Your task to perform on an android device: star an email in the gmail app Image 0: 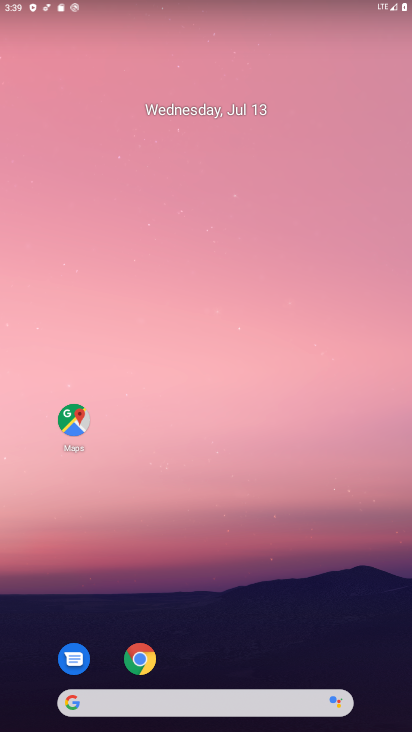
Step 0: drag from (218, 663) to (204, 241)
Your task to perform on an android device: star an email in the gmail app Image 1: 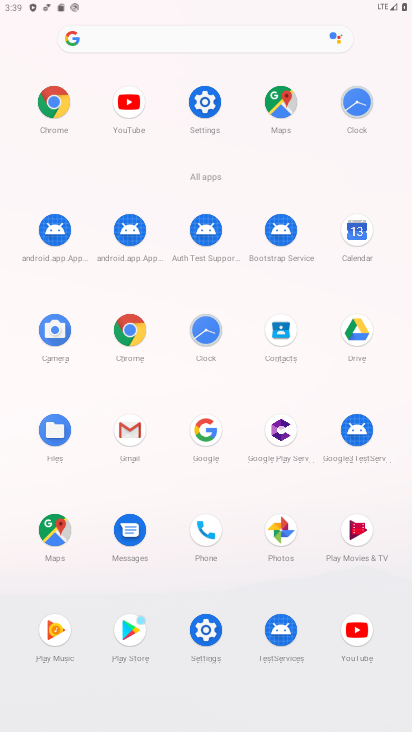
Step 1: click (129, 424)
Your task to perform on an android device: star an email in the gmail app Image 2: 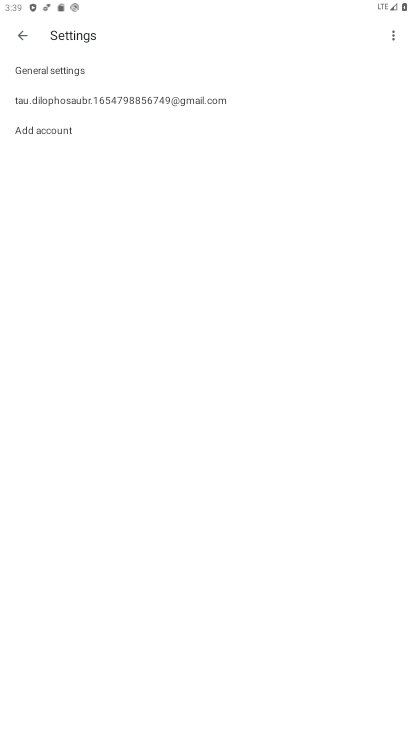
Step 2: click (17, 36)
Your task to perform on an android device: star an email in the gmail app Image 3: 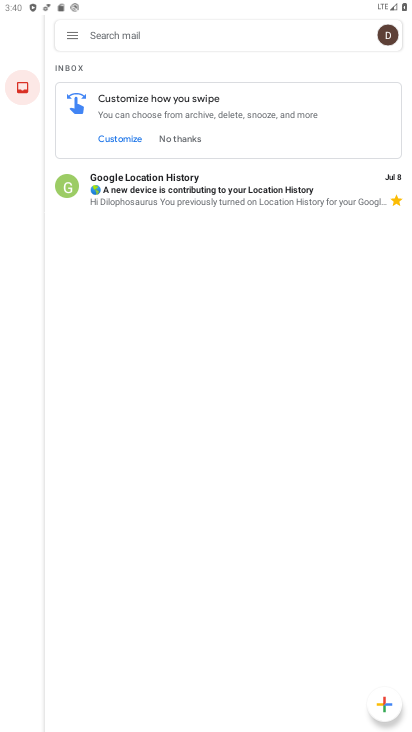
Step 3: task complete